Your task to perform on an android device: Play the last video I watched on Youtube Image 0: 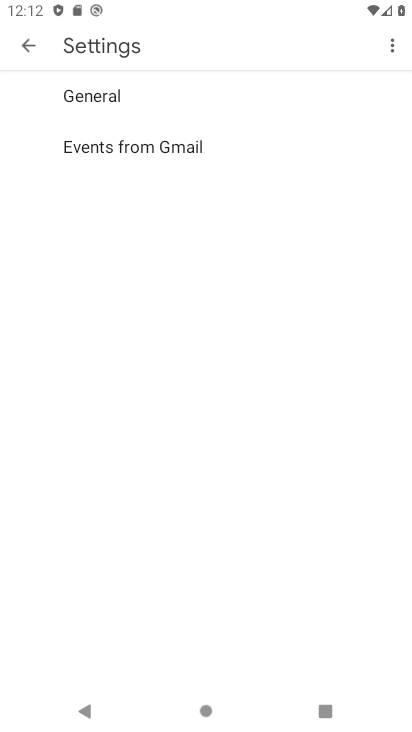
Step 0: press home button
Your task to perform on an android device: Play the last video I watched on Youtube Image 1: 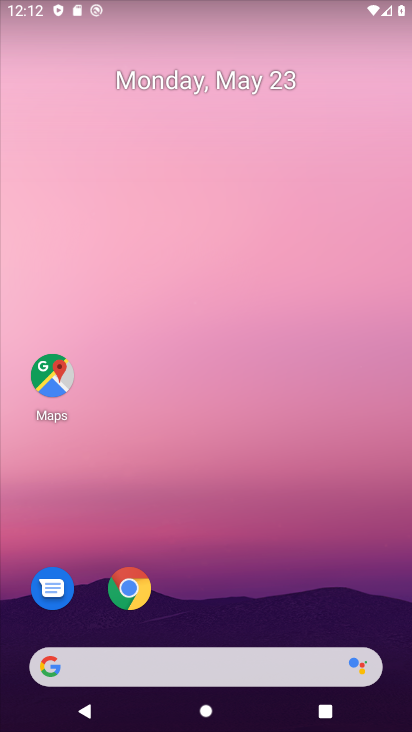
Step 1: drag from (235, 721) to (235, 39)
Your task to perform on an android device: Play the last video I watched on Youtube Image 2: 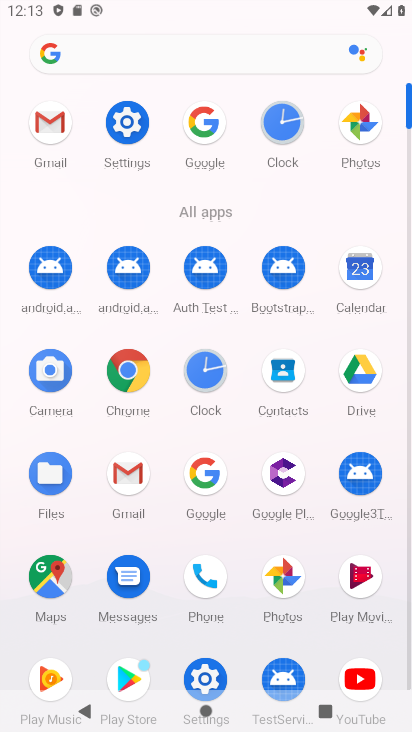
Step 2: click (350, 677)
Your task to perform on an android device: Play the last video I watched on Youtube Image 3: 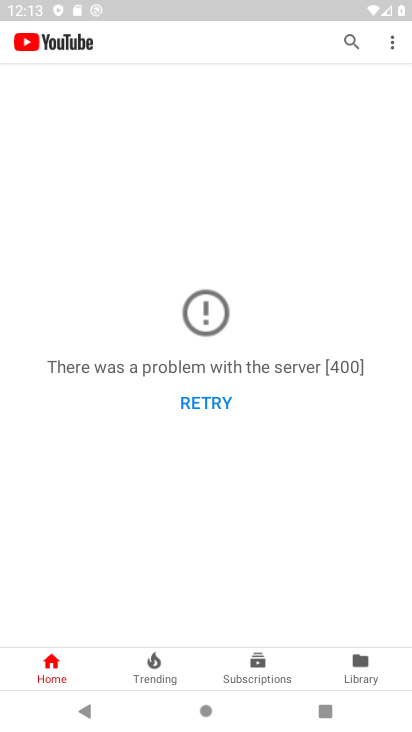
Step 3: click (351, 675)
Your task to perform on an android device: Play the last video I watched on Youtube Image 4: 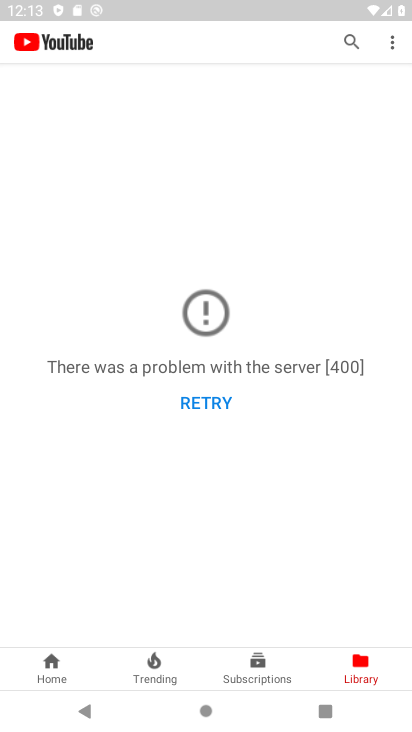
Step 4: task complete